Your task to perform on an android device: Open location settings Image 0: 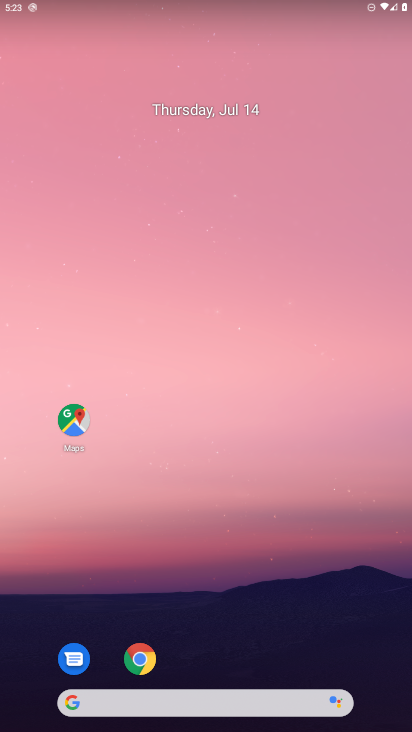
Step 0: press home button
Your task to perform on an android device: Open location settings Image 1: 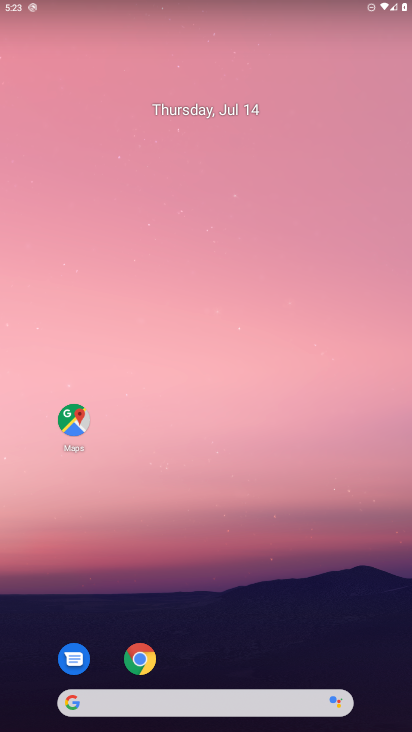
Step 1: drag from (227, 661) to (261, 11)
Your task to perform on an android device: Open location settings Image 2: 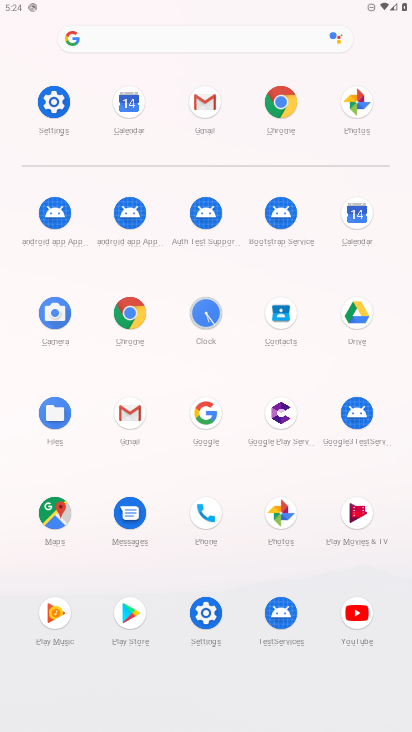
Step 2: click (47, 100)
Your task to perform on an android device: Open location settings Image 3: 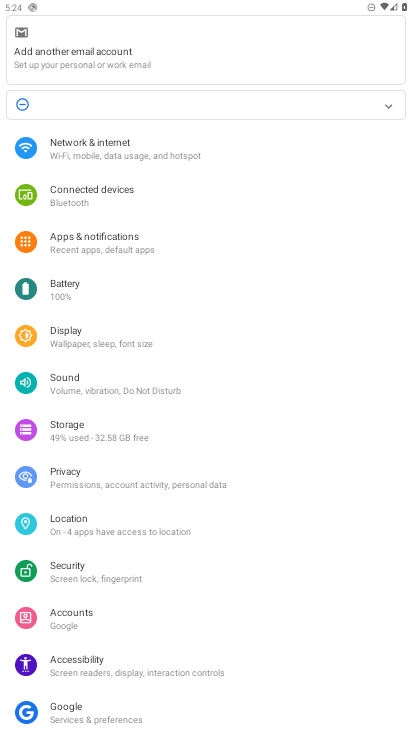
Step 3: click (99, 519)
Your task to perform on an android device: Open location settings Image 4: 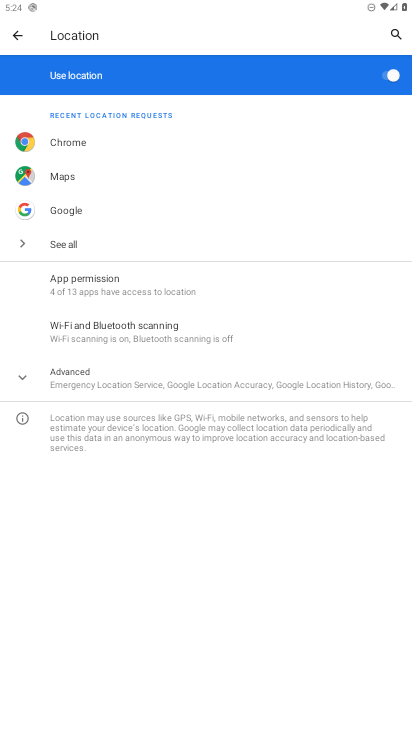
Step 4: click (22, 382)
Your task to perform on an android device: Open location settings Image 5: 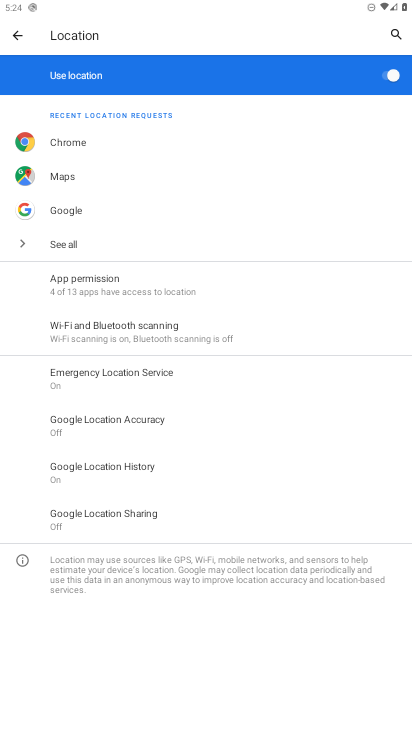
Step 5: task complete